Your task to perform on an android device: refresh tabs in the chrome app Image 0: 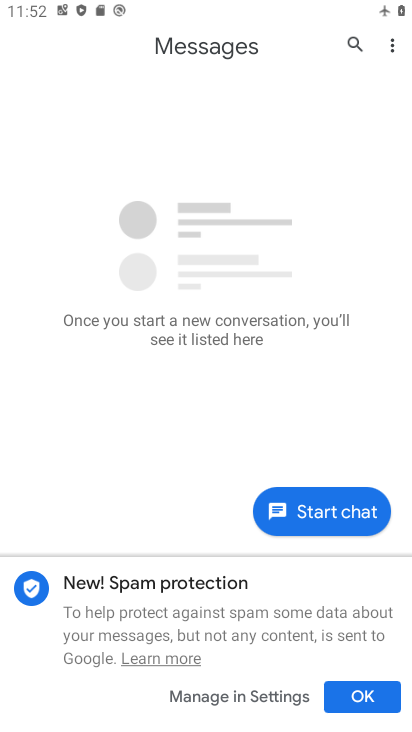
Step 0: press home button
Your task to perform on an android device: refresh tabs in the chrome app Image 1: 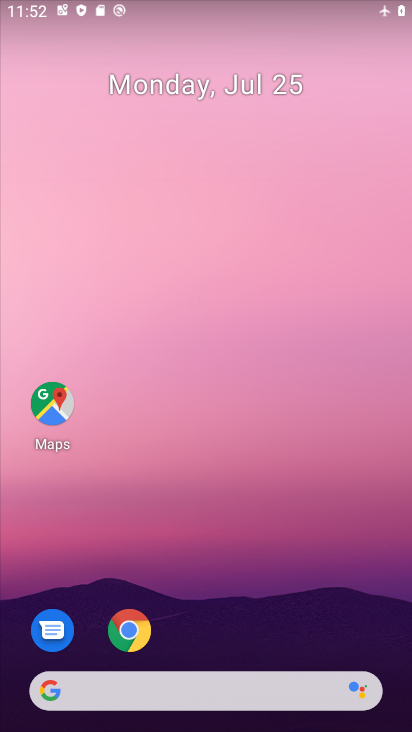
Step 1: drag from (372, 614) to (372, 186)
Your task to perform on an android device: refresh tabs in the chrome app Image 2: 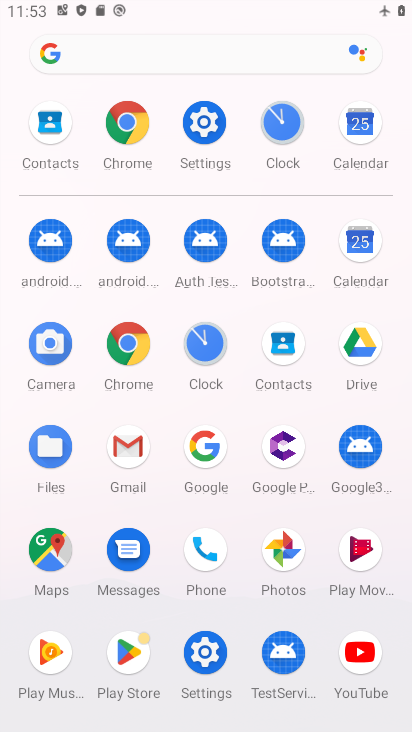
Step 2: click (135, 341)
Your task to perform on an android device: refresh tabs in the chrome app Image 3: 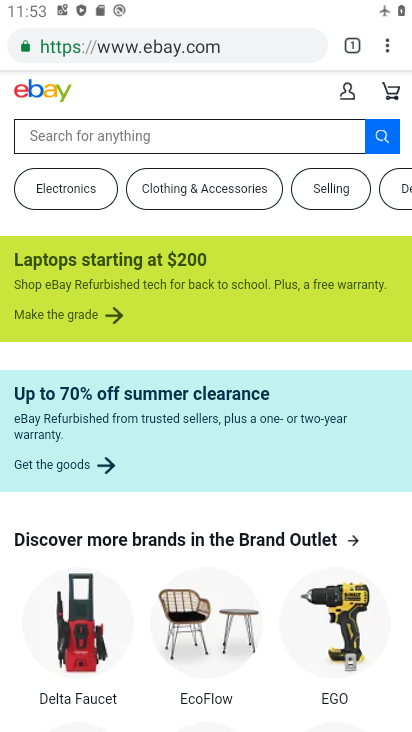
Step 3: click (386, 50)
Your task to perform on an android device: refresh tabs in the chrome app Image 4: 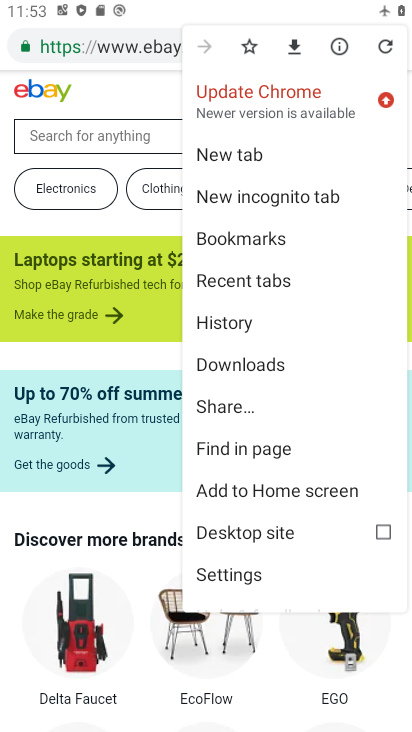
Step 4: click (386, 48)
Your task to perform on an android device: refresh tabs in the chrome app Image 5: 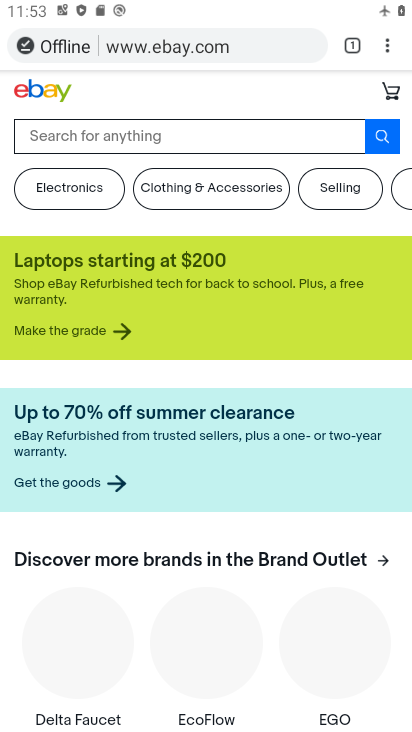
Step 5: task complete